Your task to perform on an android device: check android version Image 0: 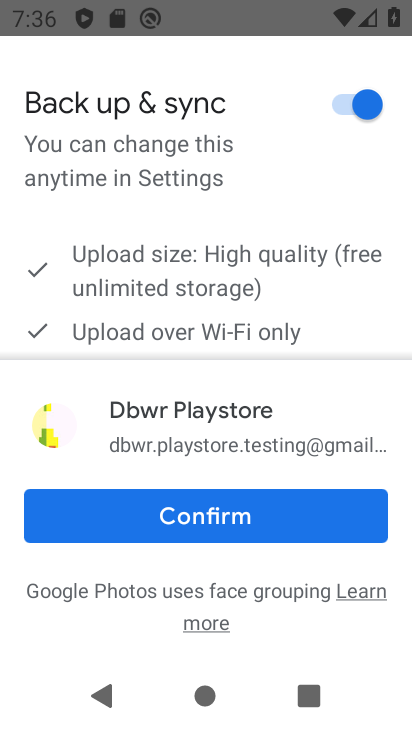
Step 0: press home button
Your task to perform on an android device: check android version Image 1: 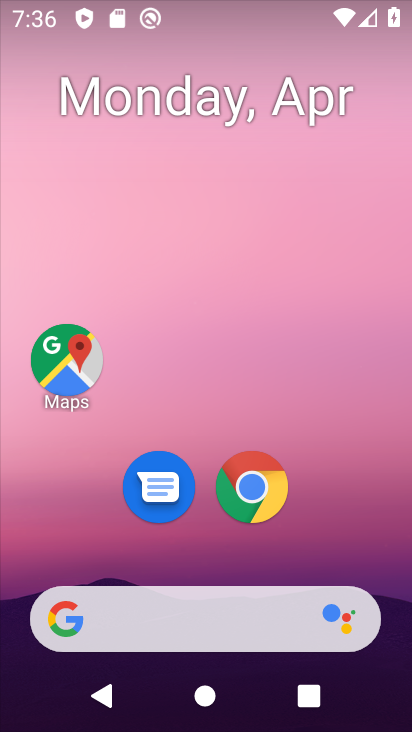
Step 1: drag from (314, 518) to (353, 98)
Your task to perform on an android device: check android version Image 2: 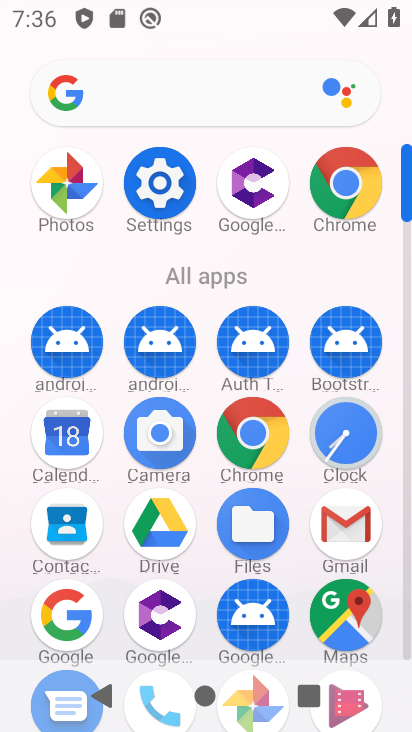
Step 2: drag from (199, 510) to (202, 208)
Your task to perform on an android device: check android version Image 3: 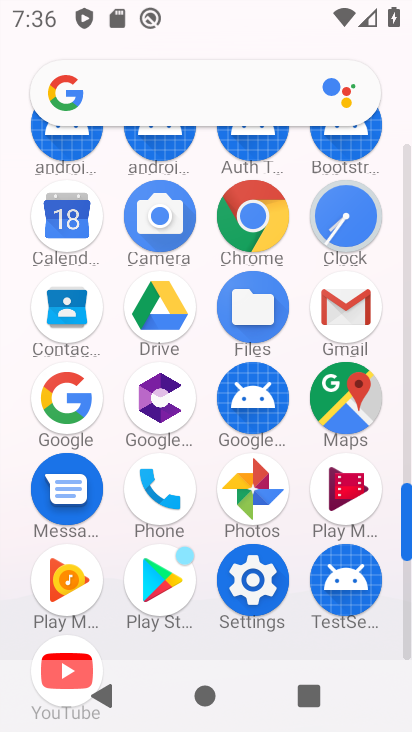
Step 3: click (252, 582)
Your task to perform on an android device: check android version Image 4: 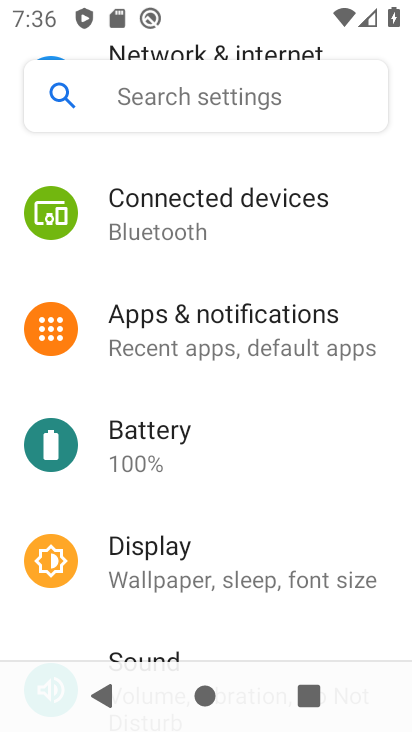
Step 4: drag from (352, 463) to (355, 240)
Your task to perform on an android device: check android version Image 5: 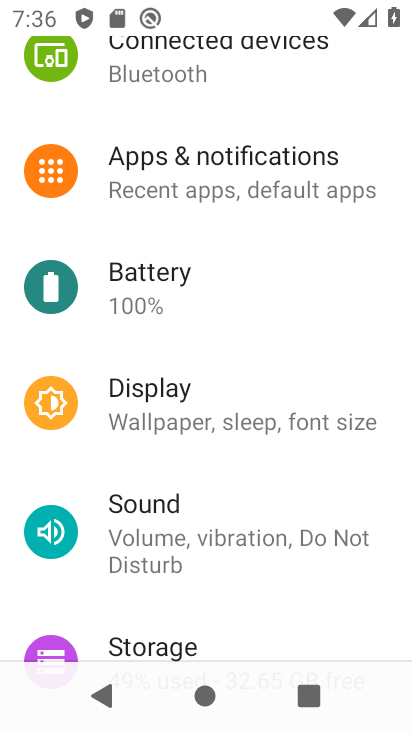
Step 5: drag from (379, 604) to (377, 301)
Your task to perform on an android device: check android version Image 6: 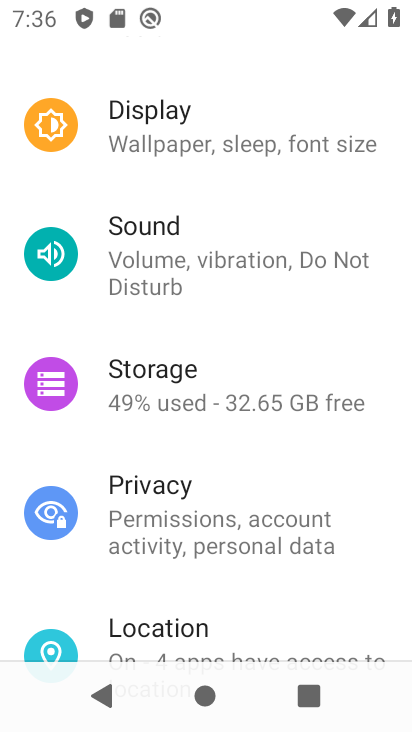
Step 6: drag from (381, 560) to (382, 227)
Your task to perform on an android device: check android version Image 7: 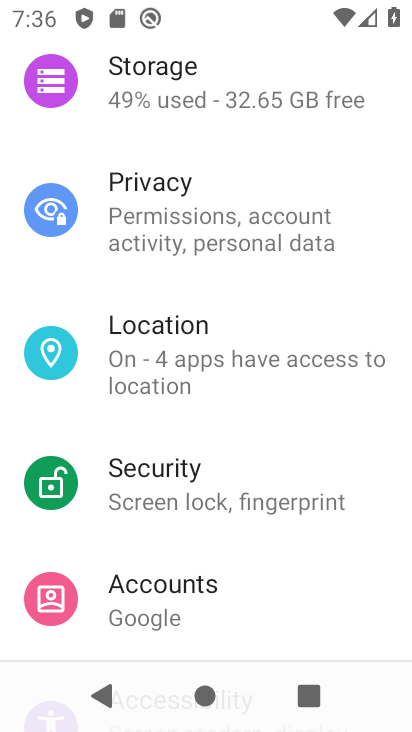
Step 7: drag from (380, 536) to (380, 256)
Your task to perform on an android device: check android version Image 8: 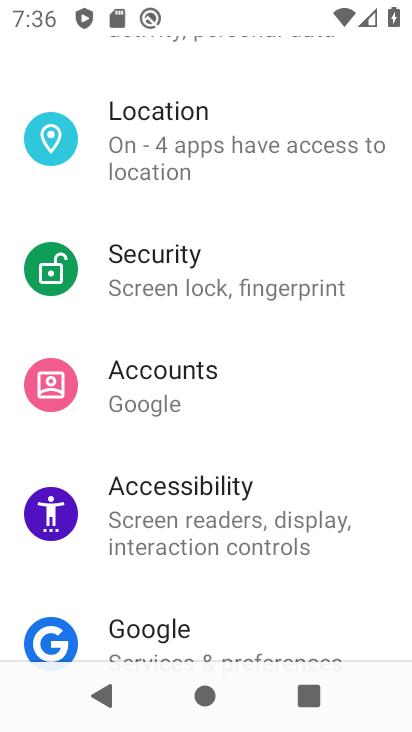
Step 8: drag from (363, 614) to (367, 323)
Your task to perform on an android device: check android version Image 9: 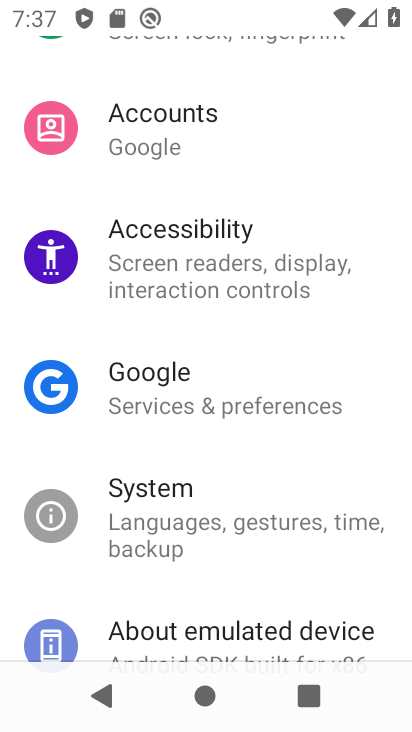
Step 9: drag from (381, 411) to (379, 171)
Your task to perform on an android device: check android version Image 10: 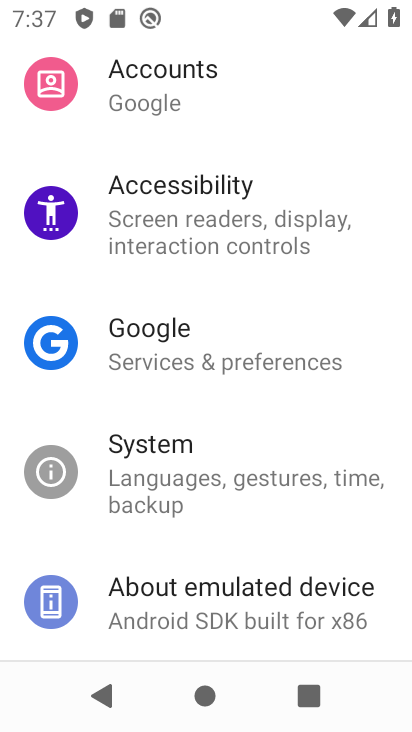
Step 10: click (248, 477)
Your task to perform on an android device: check android version Image 11: 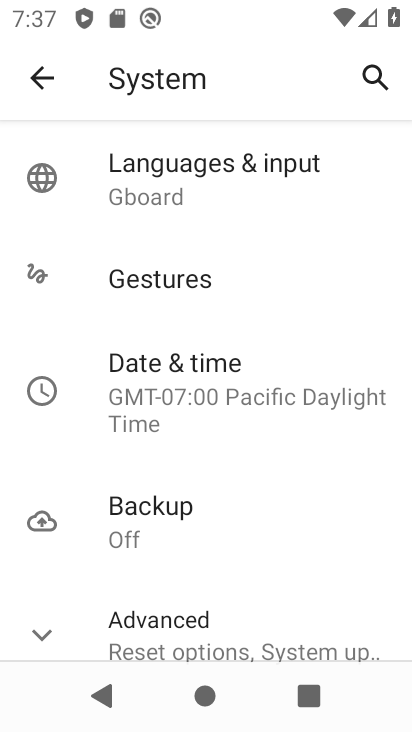
Step 11: click (189, 632)
Your task to perform on an android device: check android version Image 12: 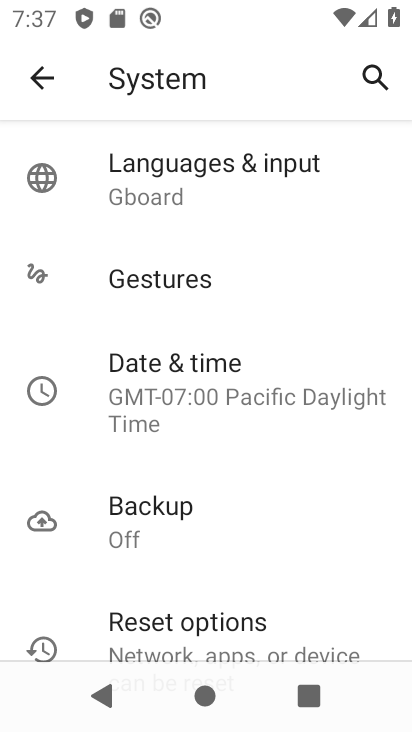
Step 12: drag from (347, 384) to (348, 172)
Your task to perform on an android device: check android version Image 13: 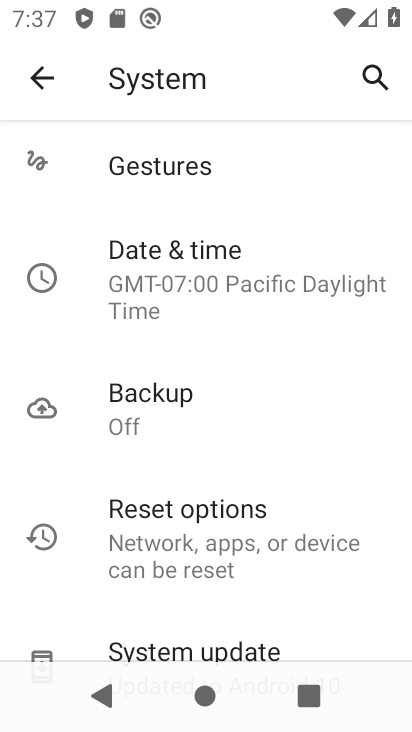
Step 13: drag from (357, 434) to (358, 211)
Your task to perform on an android device: check android version Image 14: 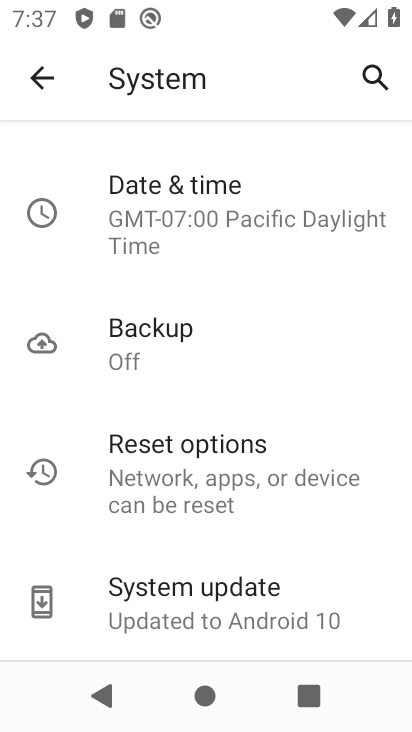
Step 14: click (283, 612)
Your task to perform on an android device: check android version Image 15: 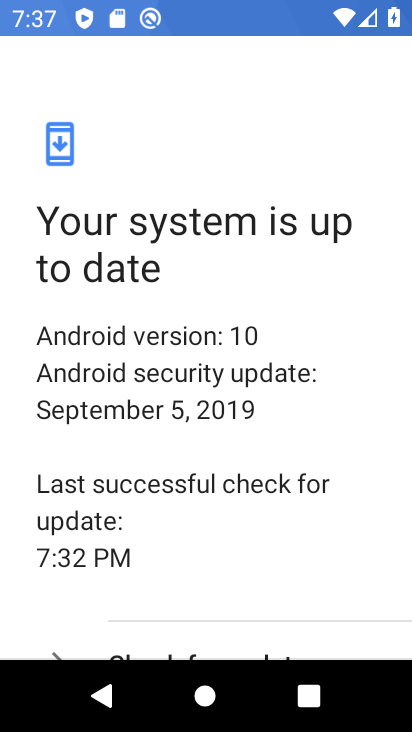
Step 15: task complete